Your task to perform on an android device: Go to settings Image 0: 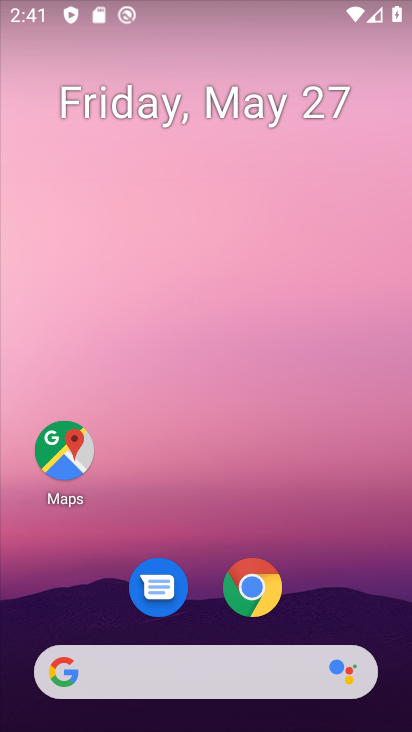
Step 0: drag from (143, 731) to (183, 18)
Your task to perform on an android device: Go to settings Image 1: 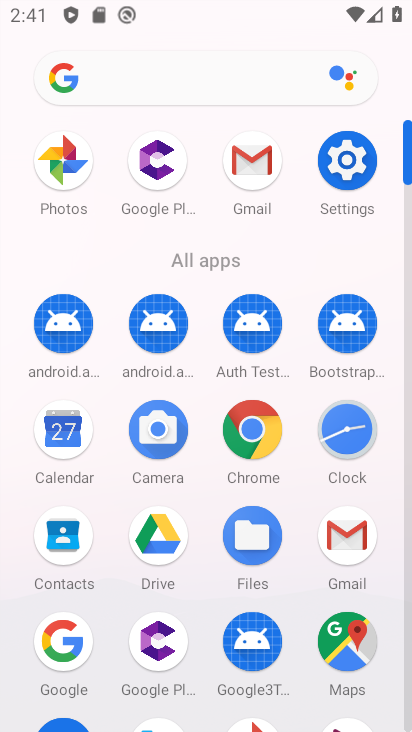
Step 1: click (353, 170)
Your task to perform on an android device: Go to settings Image 2: 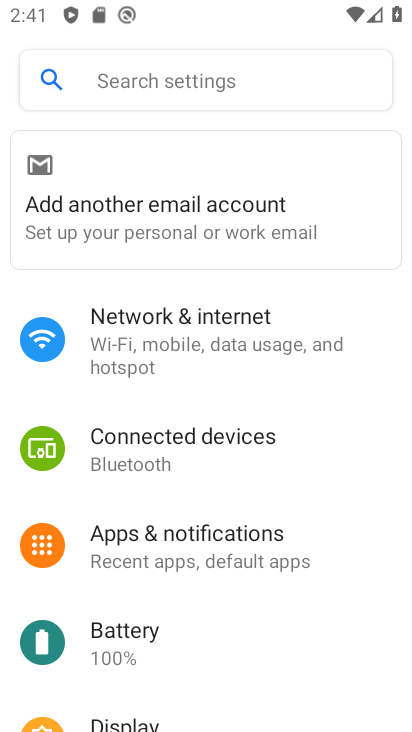
Step 2: task complete